Your task to perform on an android device: find photos in the google photos app Image 0: 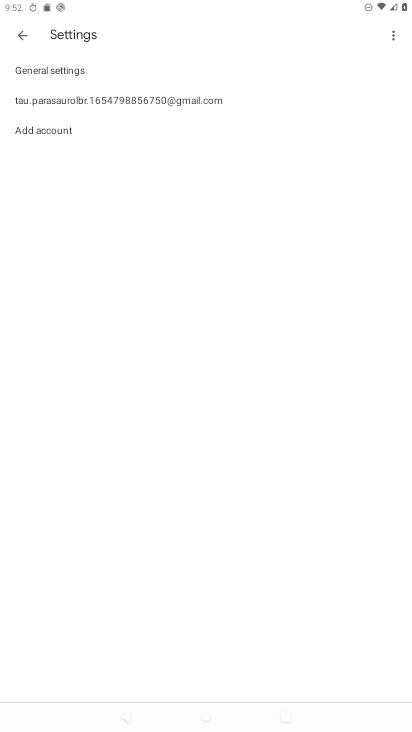
Step 0: press home button
Your task to perform on an android device: find photos in the google photos app Image 1: 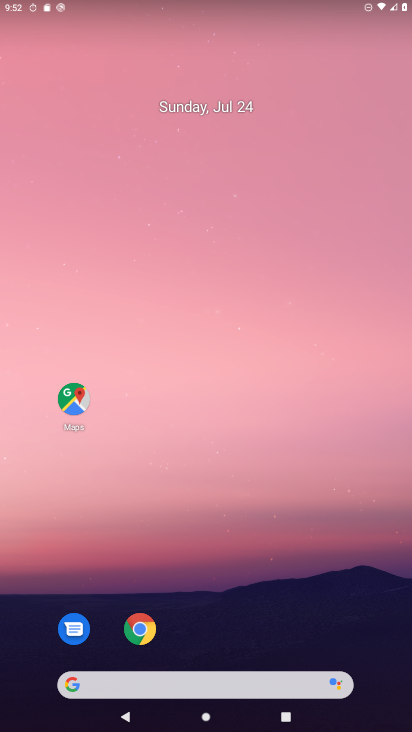
Step 1: drag from (212, 409) to (264, 88)
Your task to perform on an android device: find photos in the google photos app Image 2: 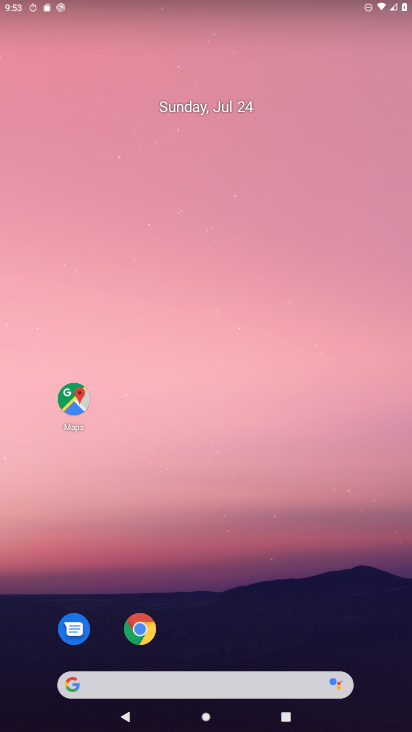
Step 2: drag from (205, 650) to (297, 153)
Your task to perform on an android device: find photos in the google photos app Image 3: 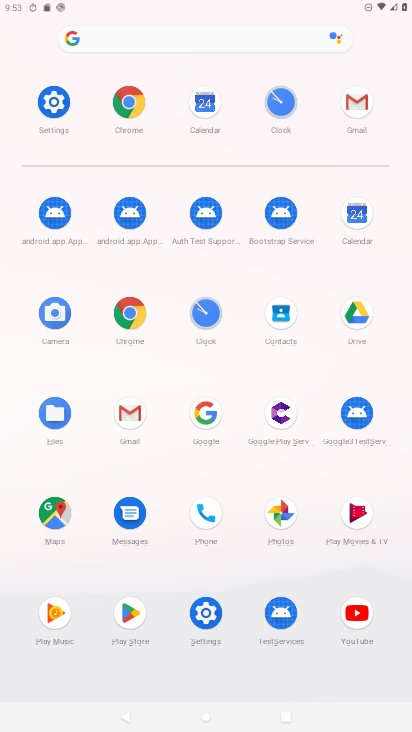
Step 3: click (285, 529)
Your task to perform on an android device: find photos in the google photos app Image 4: 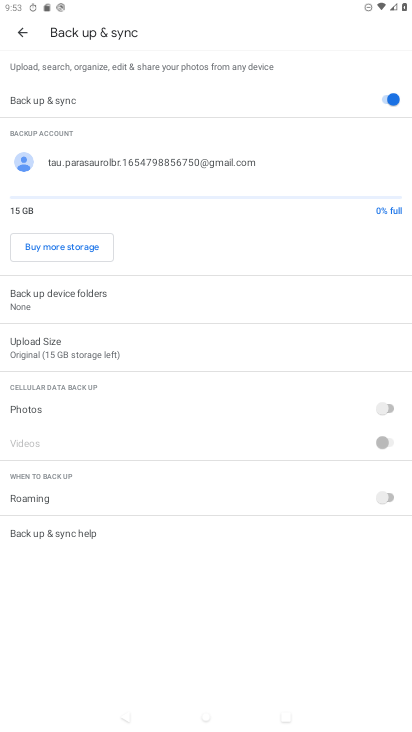
Step 4: click (20, 36)
Your task to perform on an android device: find photos in the google photos app Image 5: 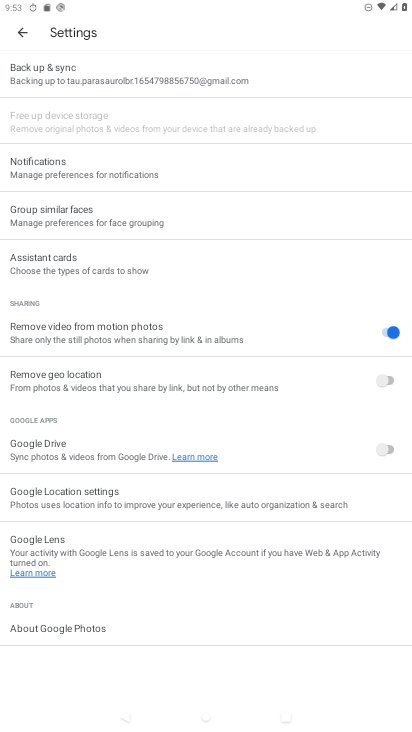
Step 5: click (20, 36)
Your task to perform on an android device: find photos in the google photos app Image 6: 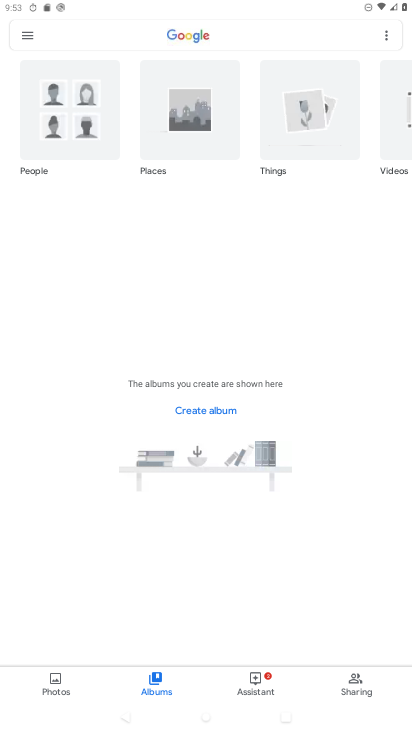
Step 6: click (50, 688)
Your task to perform on an android device: find photos in the google photos app Image 7: 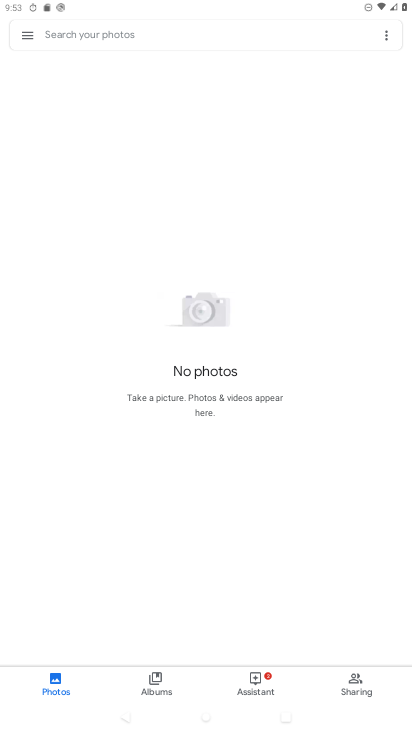
Step 7: task complete